Your task to perform on an android device: check android version Image 0: 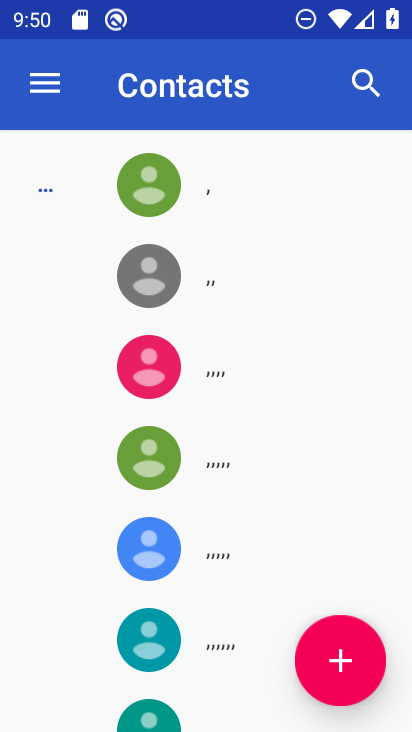
Step 0: press home button
Your task to perform on an android device: check android version Image 1: 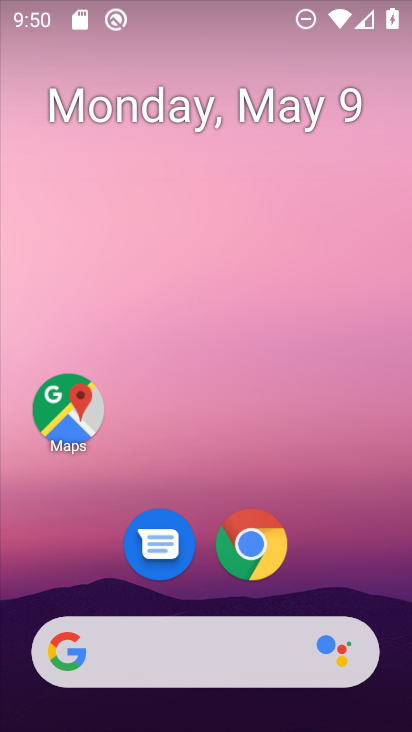
Step 1: drag from (303, 531) to (220, 69)
Your task to perform on an android device: check android version Image 2: 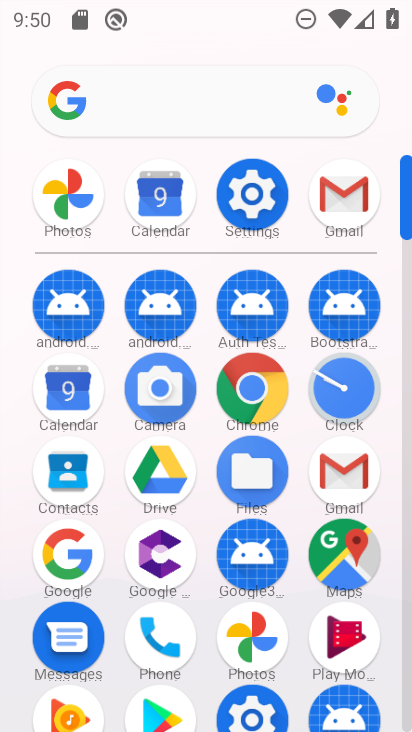
Step 2: click (262, 195)
Your task to perform on an android device: check android version Image 3: 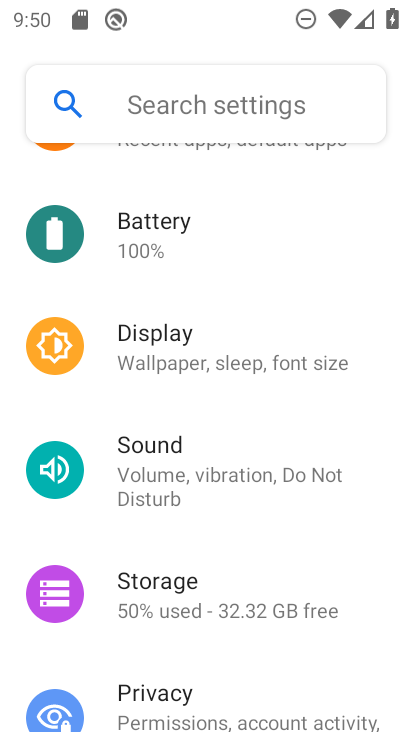
Step 3: drag from (238, 552) to (120, 42)
Your task to perform on an android device: check android version Image 4: 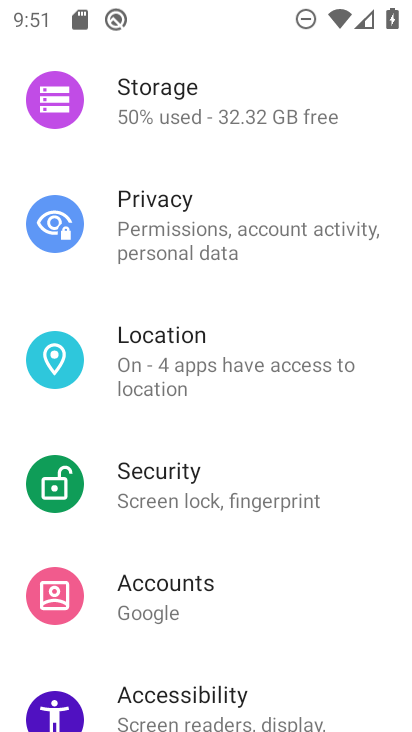
Step 4: drag from (278, 615) to (274, 172)
Your task to perform on an android device: check android version Image 5: 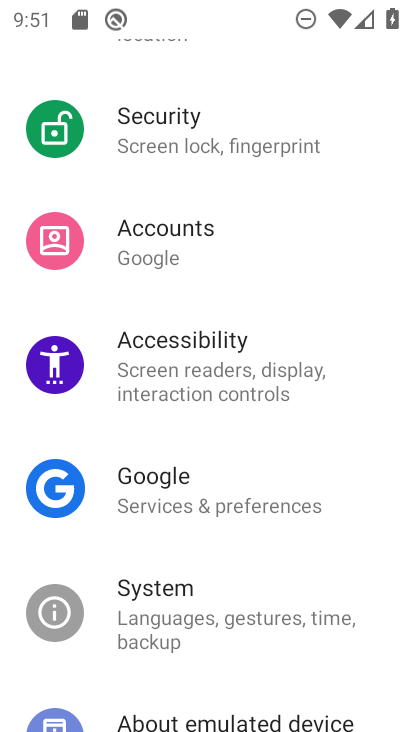
Step 5: drag from (215, 652) to (200, 251)
Your task to perform on an android device: check android version Image 6: 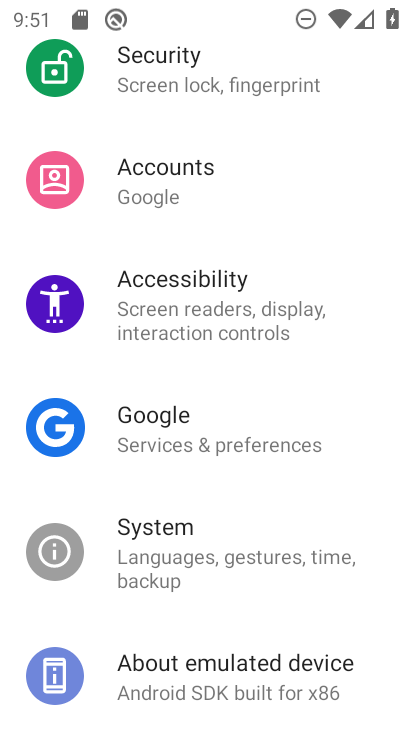
Step 6: click (200, 660)
Your task to perform on an android device: check android version Image 7: 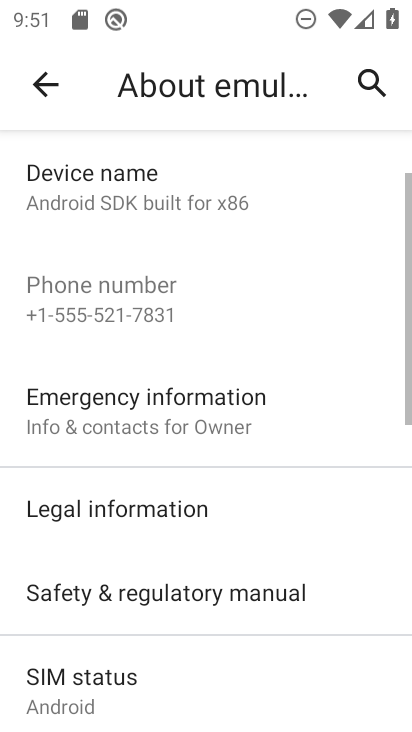
Step 7: drag from (201, 549) to (197, 173)
Your task to perform on an android device: check android version Image 8: 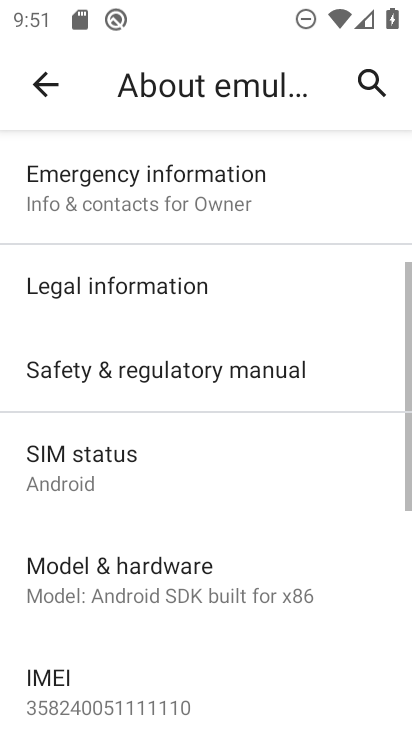
Step 8: drag from (181, 491) to (123, 103)
Your task to perform on an android device: check android version Image 9: 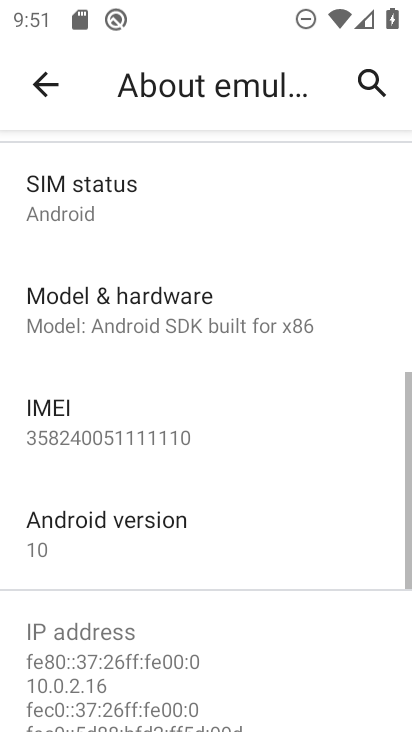
Step 9: click (114, 514)
Your task to perform on an android device: check android version Image 10: 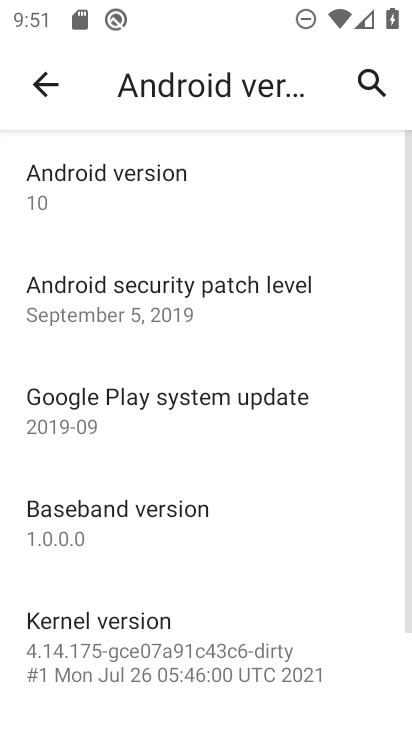
Step 10: task complete